Your task to perform on an android device: Clear all items from cart on bestbuy.com. Add razer thresher to the cart on bestbuy.com Image 0: 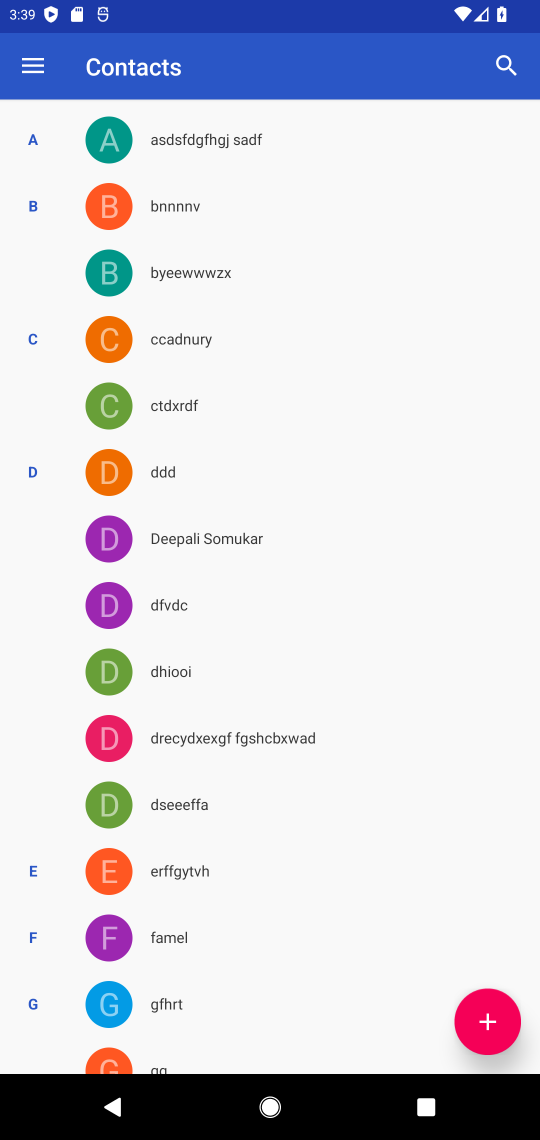
Step 0: press home button
Your task to perform on an android device: Clear all items from cart on bestbuy.com. Add razer thresher to the cart on bestbuy.com Image 1: 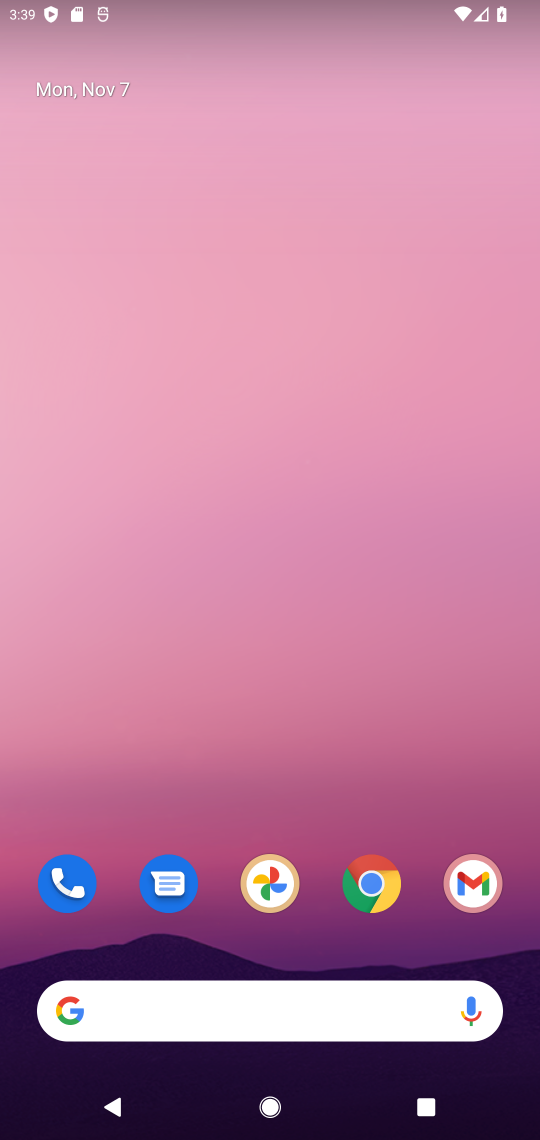
Step 1: click (365, 874)
Your task to perform on an android device: Clear all items from cart on bestbuy.com. Add razer thresher to the cart on bestbuy.com Image 2: 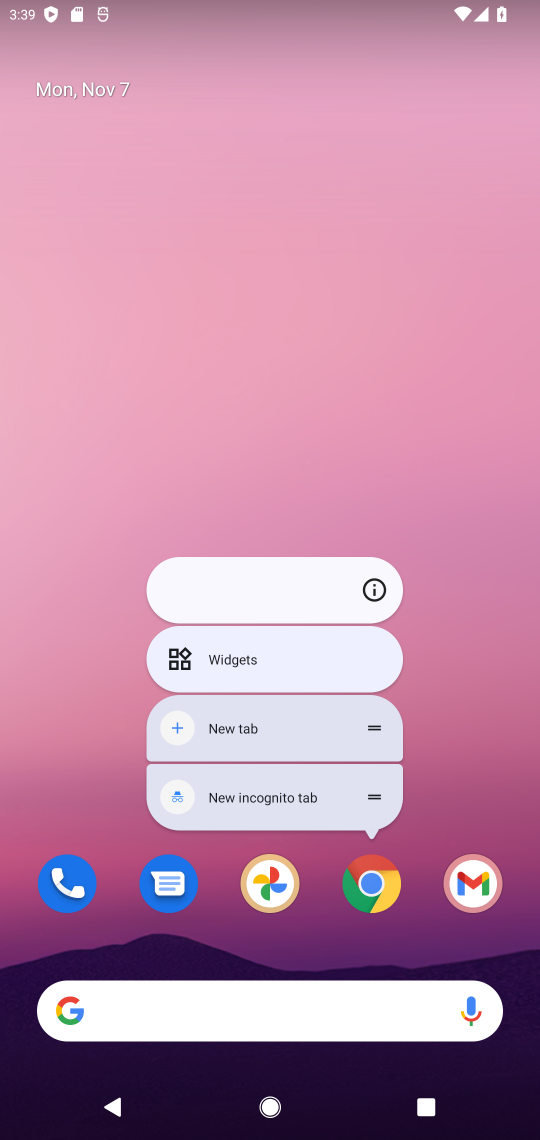
Step 2: click (365, 876)
Your task to perform on an android device: Clear all items from cart on bestbuy.com. Add razer thresher to the cart on bestbuy.com Image 3: 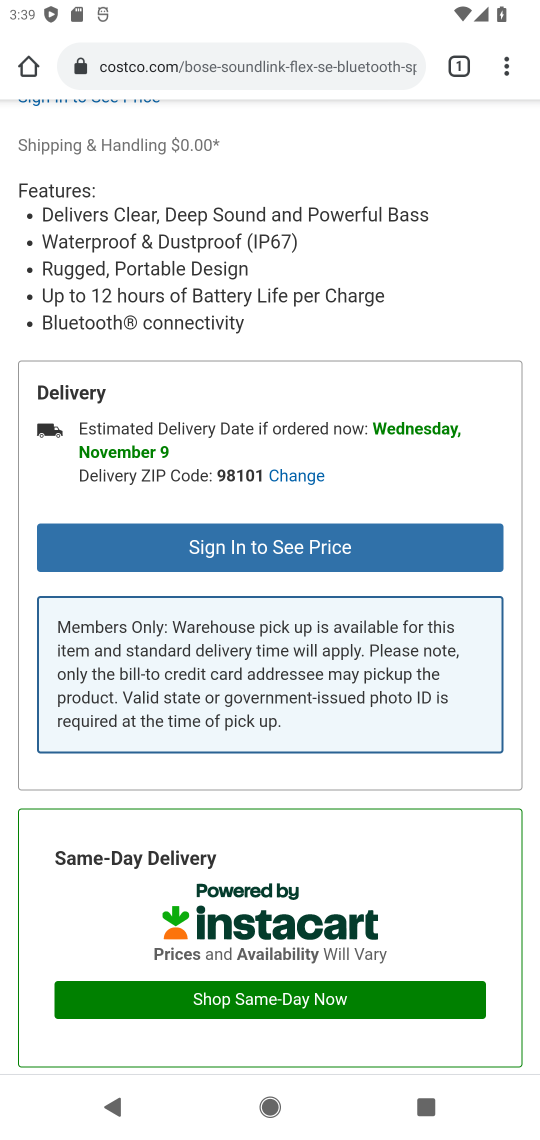
Step 3: click (245, 65)
Your task to perform on an android device: Clear all items from cart on bestbuy.com. Add razer thresher to the cart on bestbuy.com Image 4: 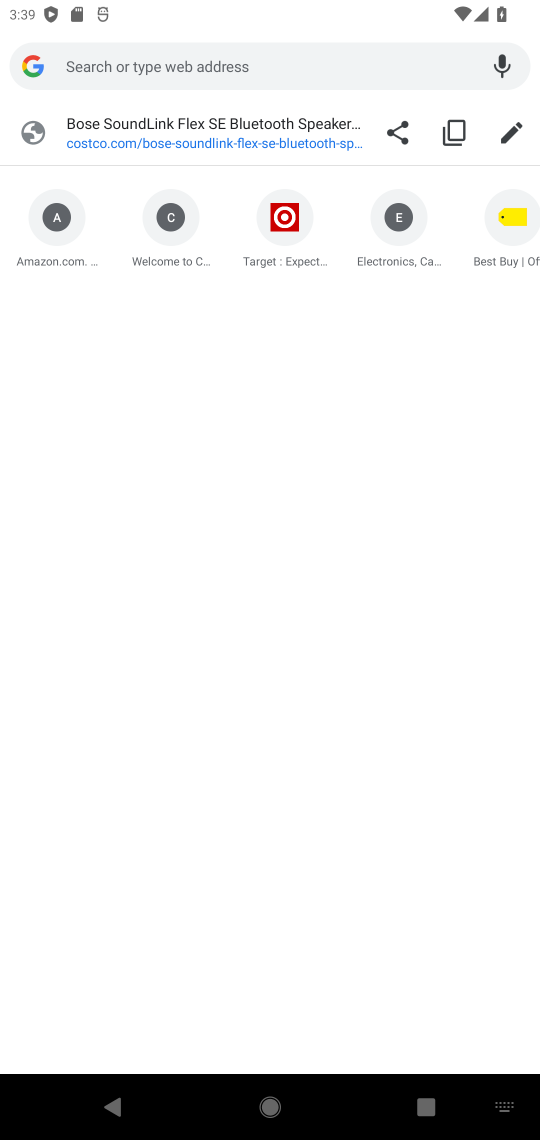
Step 4: click (494, 262)
Your task to perform on an android device: Clear all items from cart on bestbuy.com. Add razer thresher to the cart on bestbuy.com Image 5: 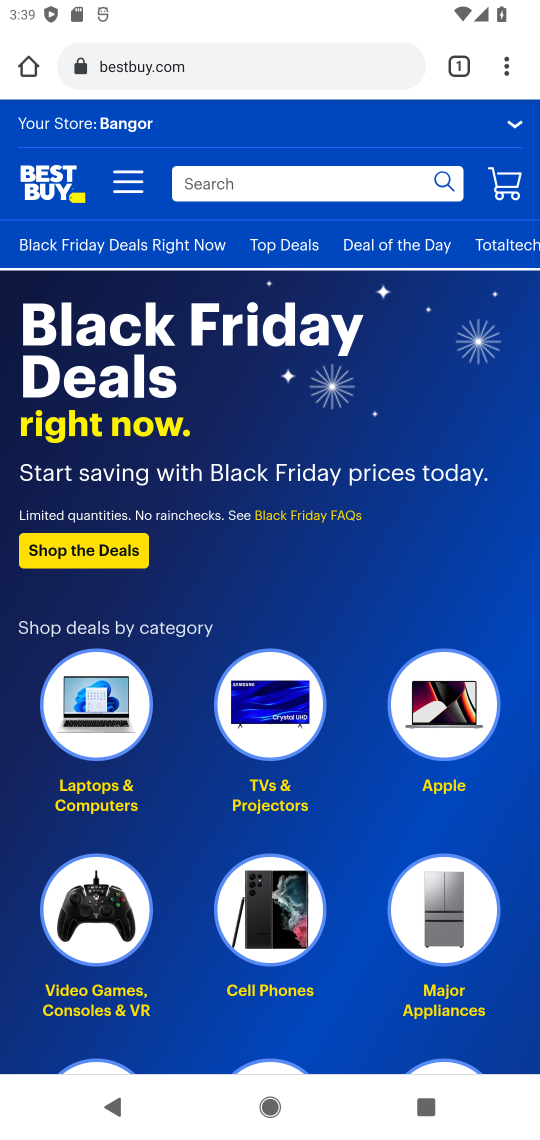
Step 5: click (301, 168)
Your task to perform on an android device: Clear all items from cart on bestbuy.com. Add razer thresher to the cart on bestbuy.com Image 6: 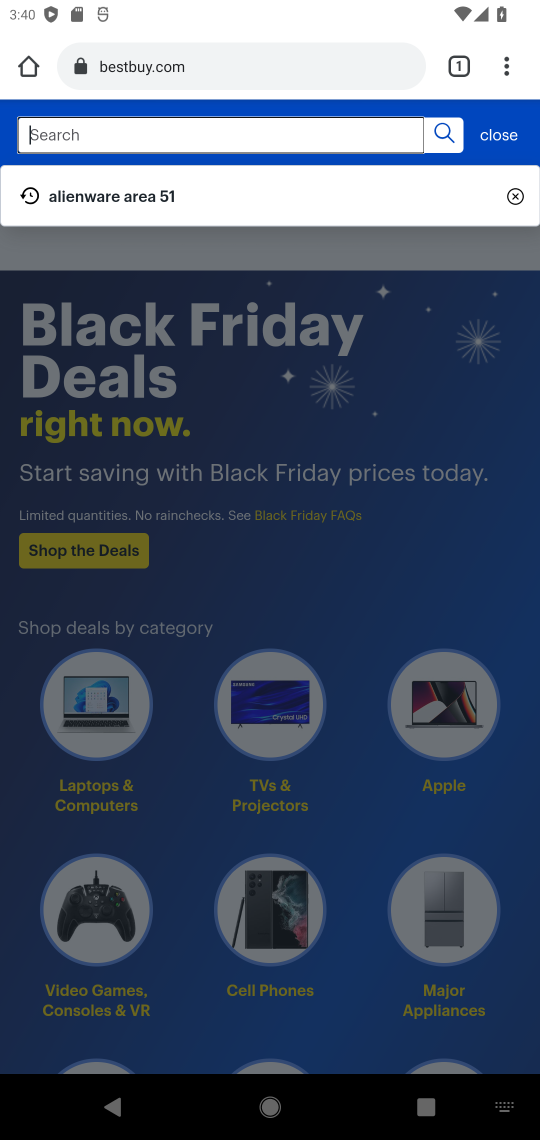
Step 6: type "razer thresher"
Your task to perform on an android device: Clear all items from cart on bestbuy.com. Add razer thresher to the cart on bestbuy.com Image 7: 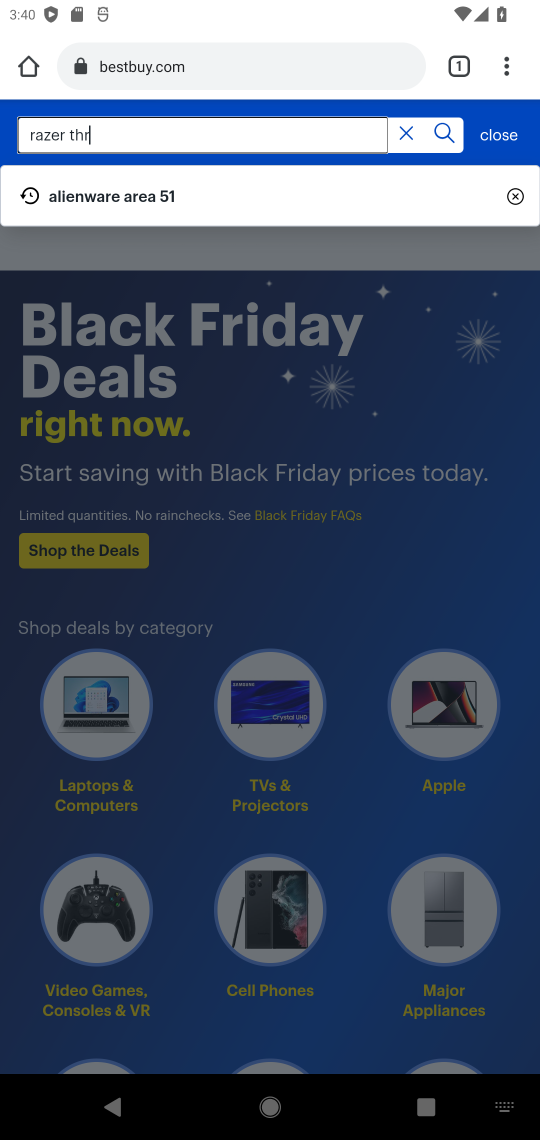
Step 7: press enter
Your task to perform on an android device: Clear all items from cart on bestbuy.com. Add razer thresher to the cart on bestbuy.com Image 8: 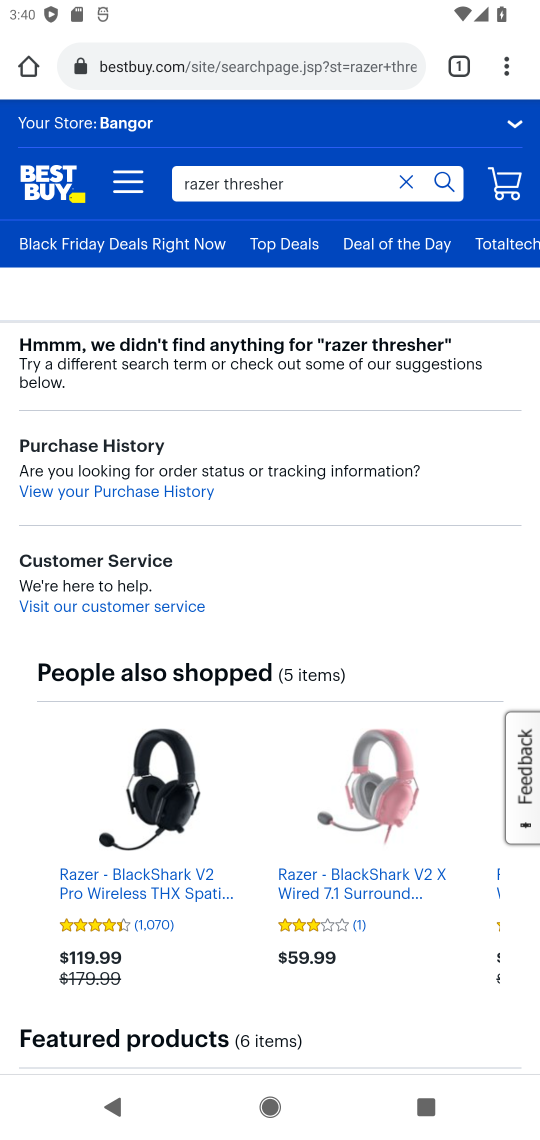
Step 8: task complete